Your task to perform on an android device: make emails show in primary in the gmail app Image 0: 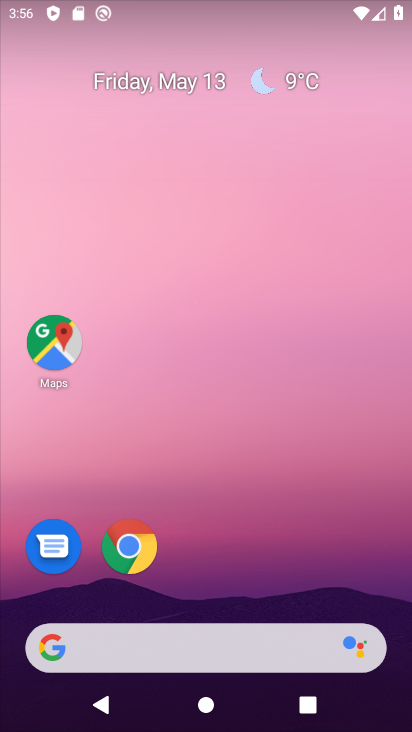
Step 0: drag from (225, 602) to (219, 3)
Your task to perform on an android device: make emails show in primary in the gmail app Image 1: 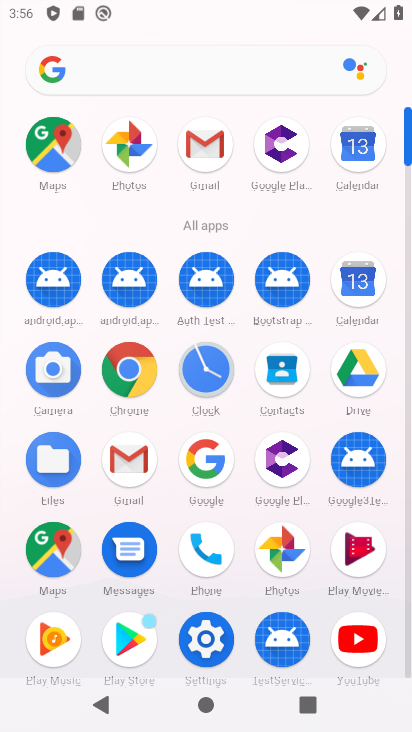
Step 1: click (131, 472)
Your task to perform on an android device: make emails show in primary in the gmail app Image 2: 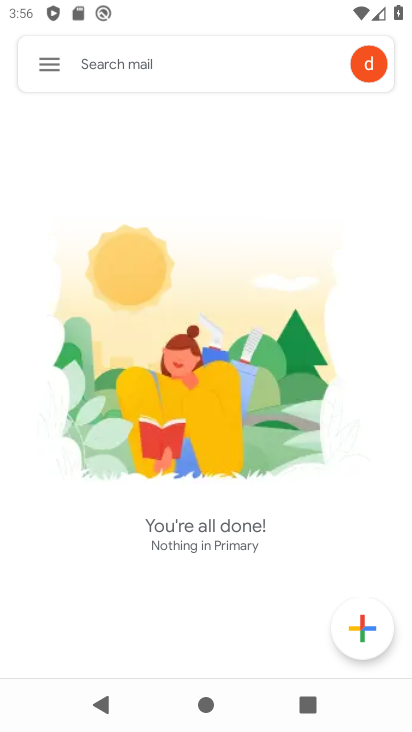
Step 2: task complete